Your task to perform on an android device: check data usage Image 0: 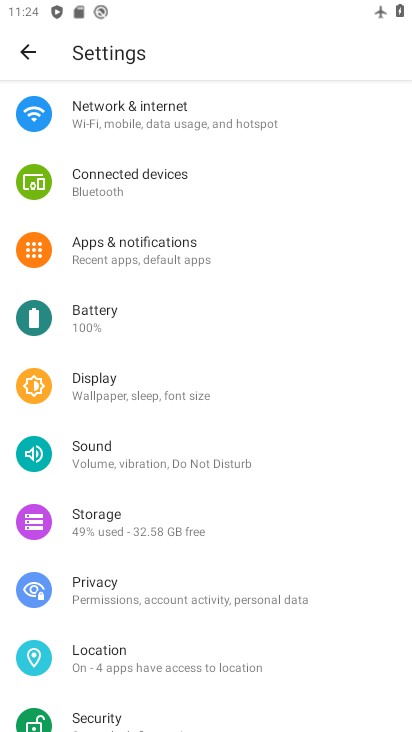
Step 0: click (165, 121)
Your task to perform on an android device: check data usage Image 1: 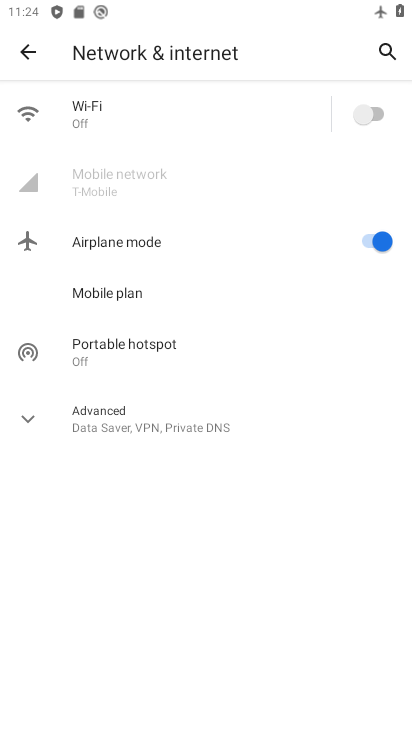
Step 1: click (156, 164)
Your task to perform on an android device: check data usage Image 2: 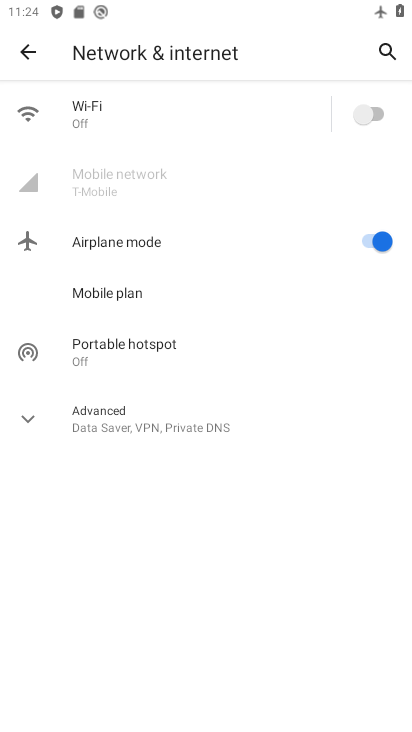
Step 2: task complete